Your task to perform on an android device: Open settings Image 0: 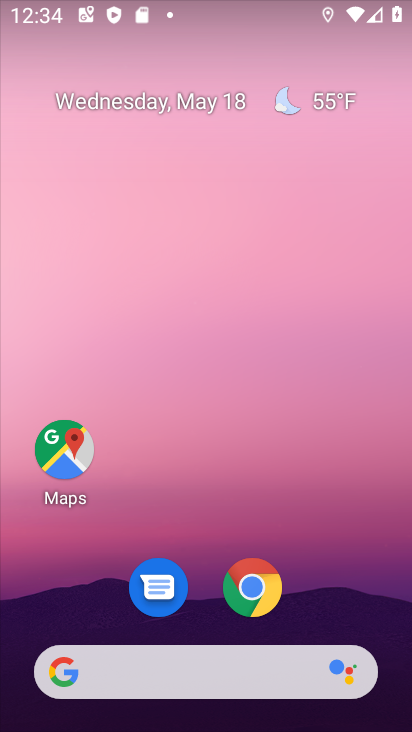
Step 0: drag from (304, 573) to (286, 177)
Your task to perform on an android device: Open settings Image 1: 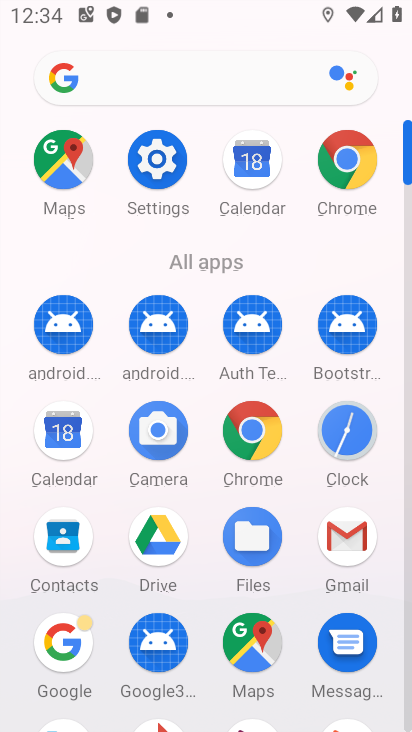
Step 1: click (154, 161)
Your task to perform on an android device: Open settings Image 2: 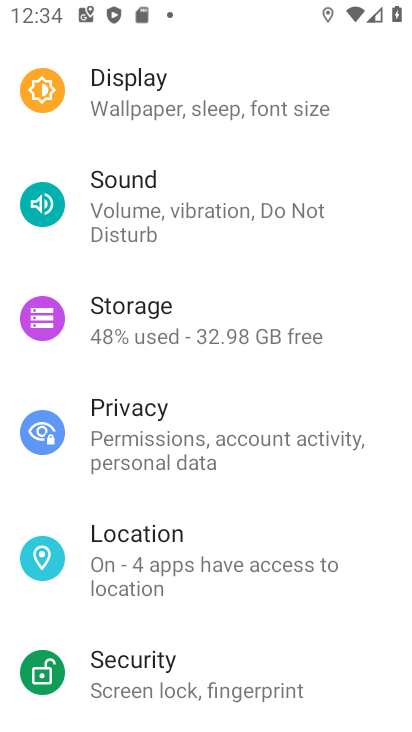
Step 2: task complete